Your task to perform on an android device: Open Reddit.com Image 0: 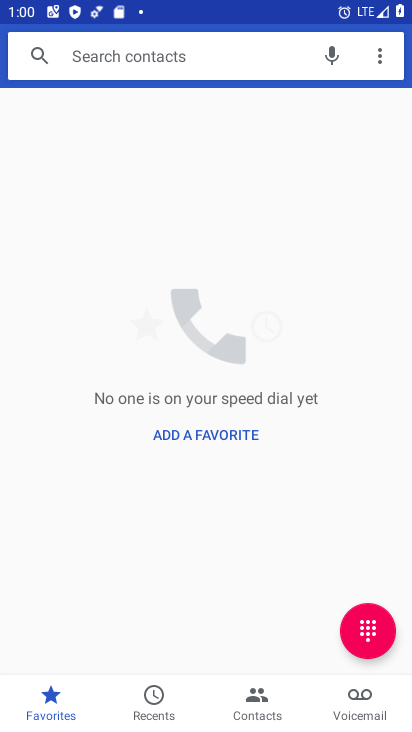
Step 0: press back button
Your task to perform on an android device: Open Reddit.com Image 1: 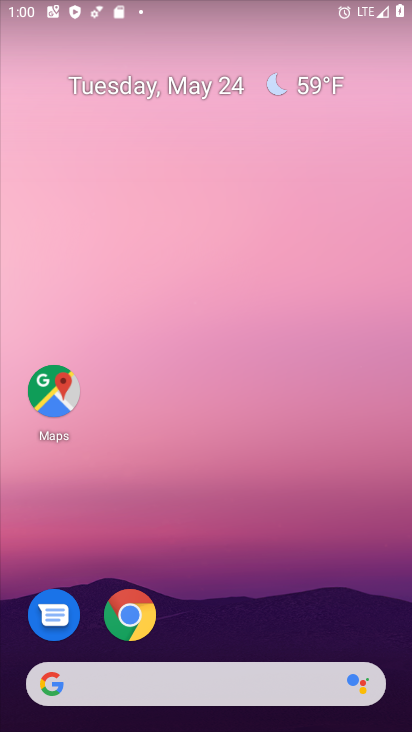
Step 1: drag from (239, 552) to (230, 31)
Your task to perform on an android device: Open Reddit.com Image 2: 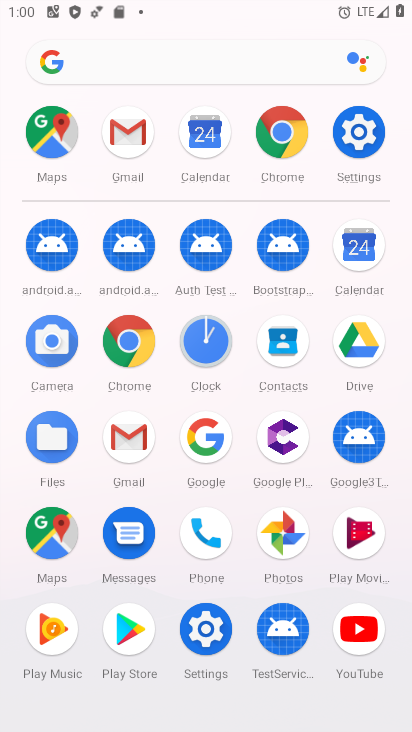
Step 2: click (278, 132)
Your task to perform on an android device: Open Reddit.com Image 3: 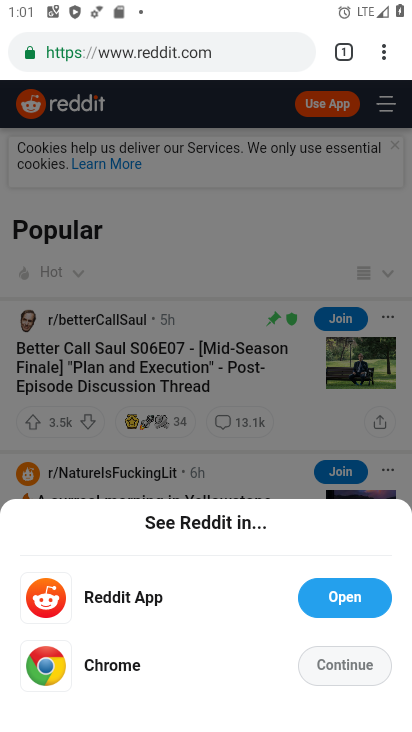
Step 3: task complete